Your task to perform on an android device: all mails in gmail Image 0: 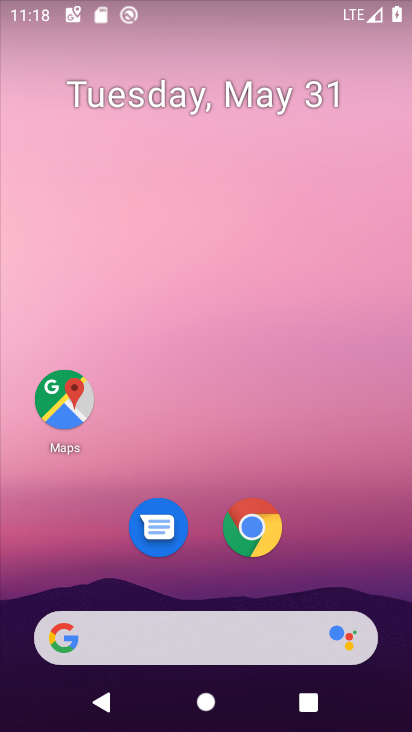
Step 0: drag from (341, 611) to (331, 3)
Your task to perform on an android device: all mails in gmail Image 1: 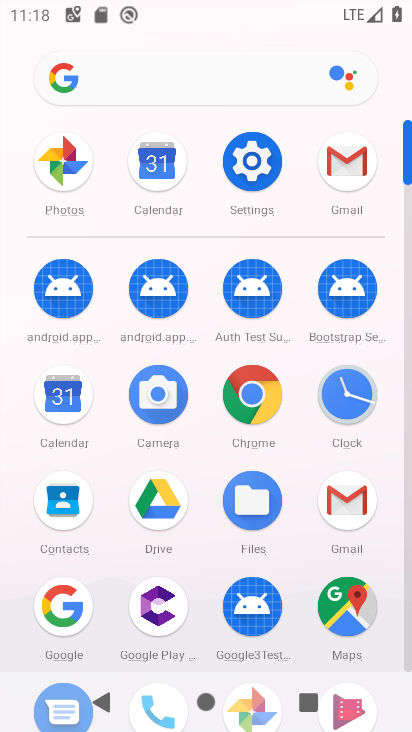
Step 1: click (347, 169)
Your task to perform on an android device: all mails in gmail Image 2: 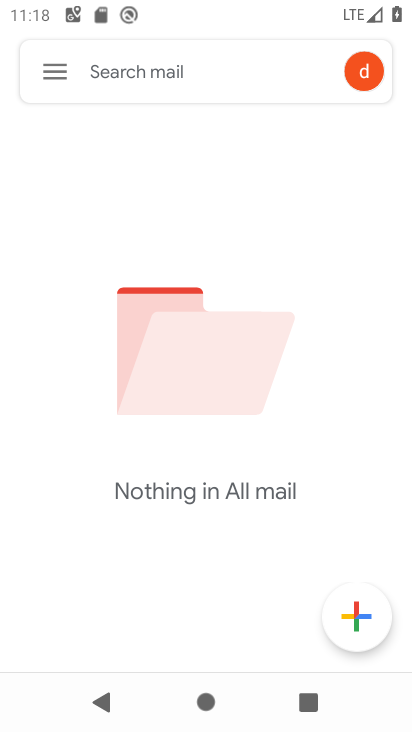
Step 2: task complete